Your task to perform on an android device: toggle show notifications on the lock screen Image 0: 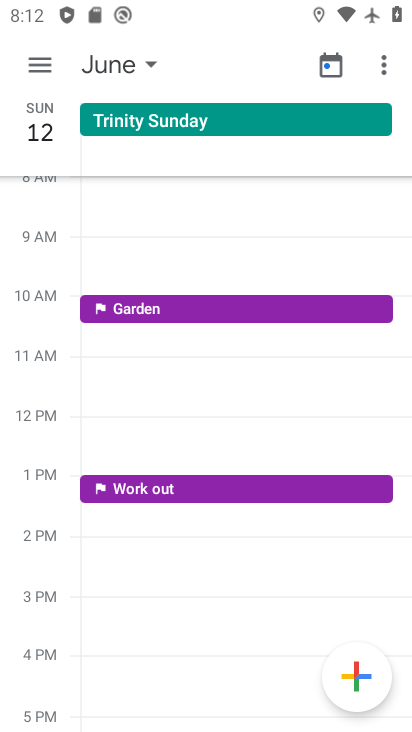
Step 0: press home button
Your task to perform on an android device: toggle show notifications on the lock screen Image 1: 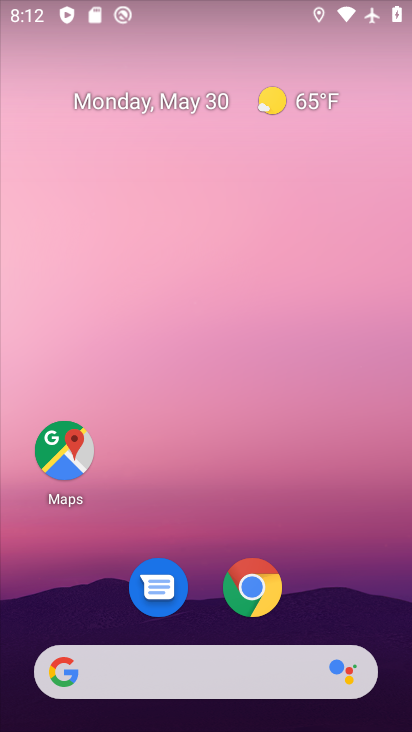
Step 1: drag from (147, 674) to (353, 65)
Your task to perform on an android device: toggle show notifications on the lock screen Image 2: 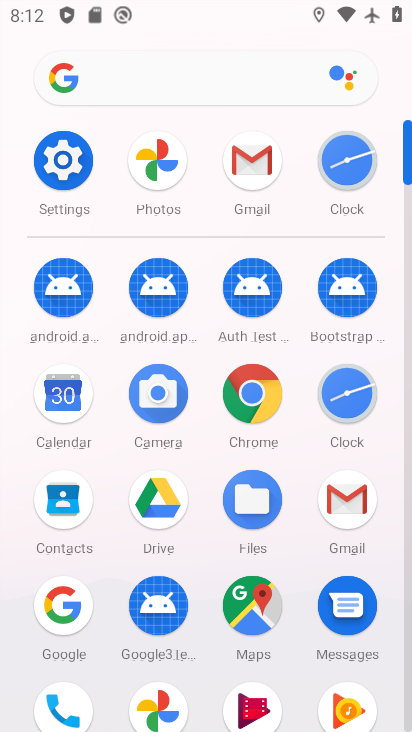
Step 2: click (56, 172)
Your task to perform on an android device: toggle show notifications on the lock screen Image 3: 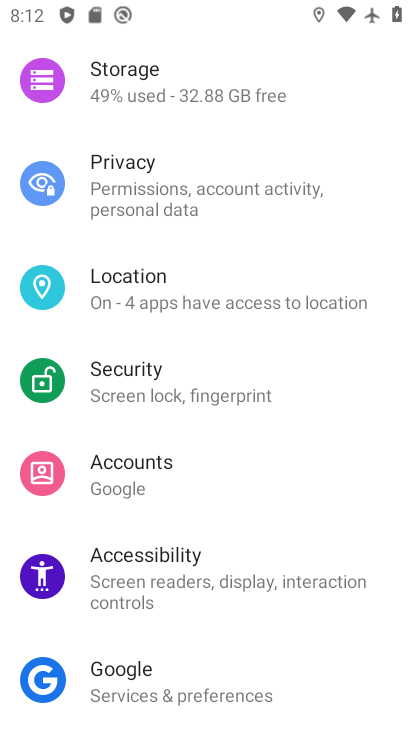
Step 3: drag from (296, 132) to (247, 657)
Your task to perform on an android device: toggle show notifications on the lock screen Image 4: 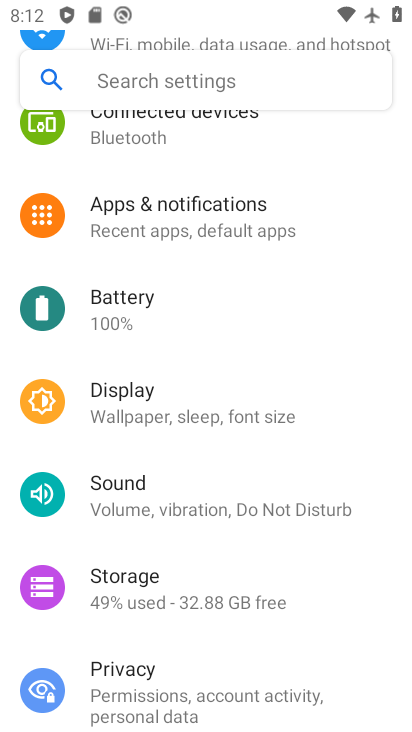
Step 4: click (202, 217)
Your task to perform on an android device: toggle show notifications on the lock screen Image 5: 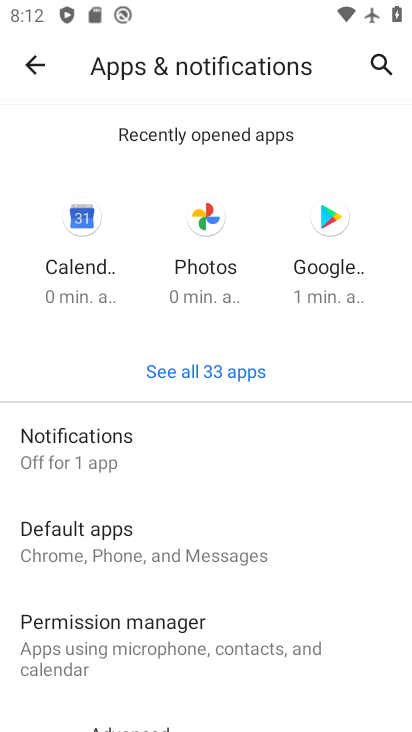
Step 5: click (110, 448)
Your task to perform on an android device: toggle show notifications on the lock screen Image 6: 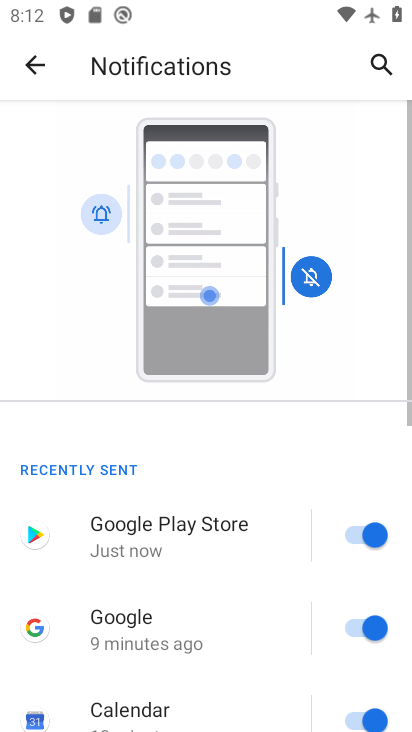
Step 6: drag from (237, 603) to (317, 216)
Your task to perform on an android device: toggle show notifications on the lock screen Image 7: 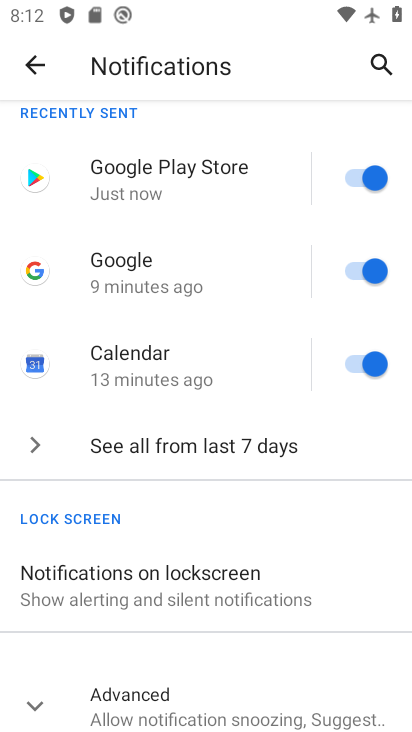
Step 7: click (191, 583)
Your task to perform on an android device: toggle show notifications on the lock screen Image 8: 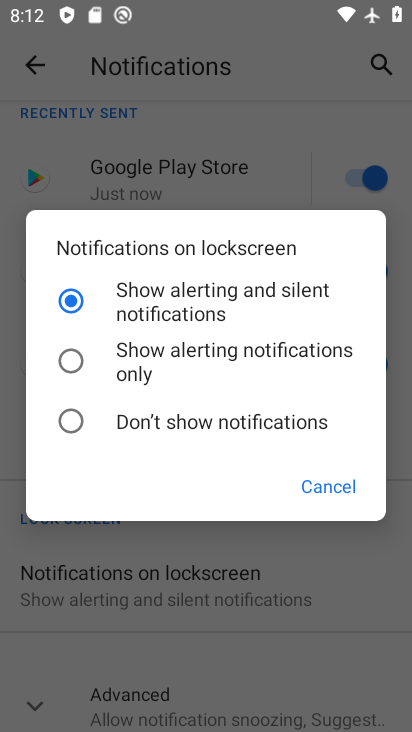
Step 8: click (67, 423)
Your task to perform on an android device: toggle show notifications on the lock screen Image 9: 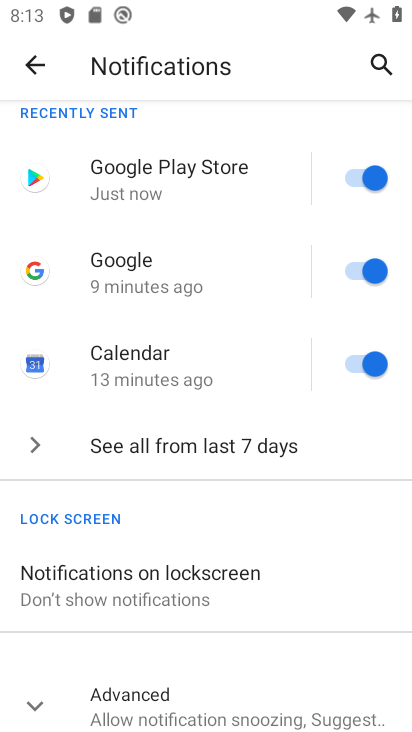
Step 9: task complete